Your task to perform on an android device: Search for "macbook" on target, select the first entry, and add it to the cart. Image 0: 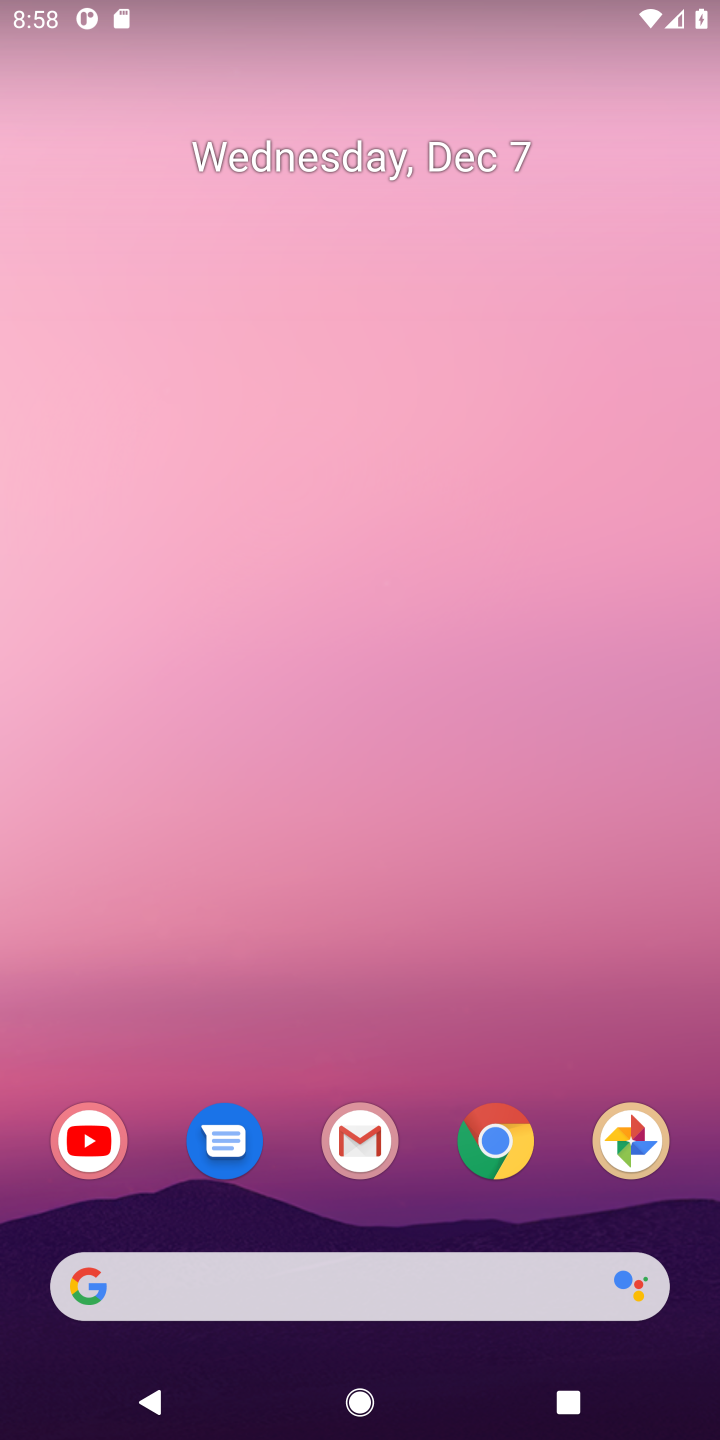
Step 0: press home button
Your task to perform on an android device: Search for "macbook" on target, select the first entry, and add it to the cart. Image 1: 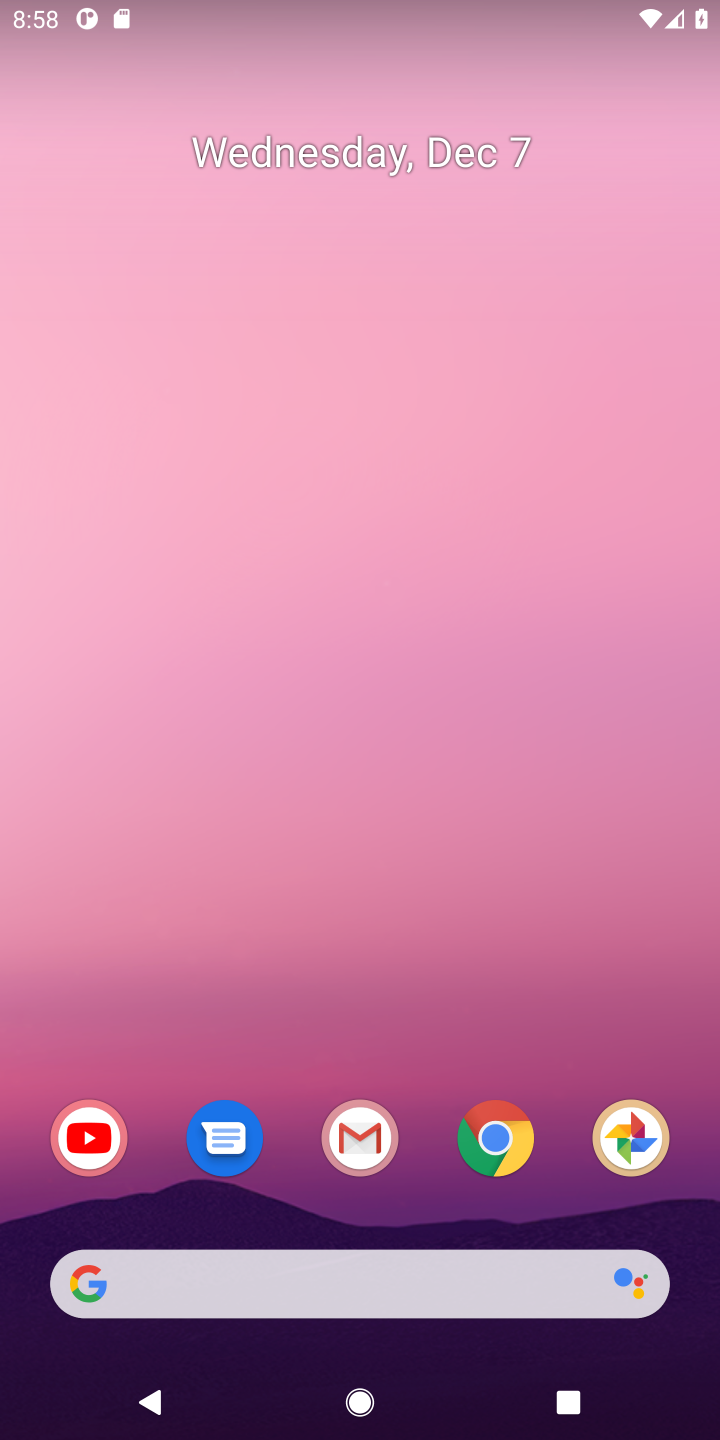
Step 1: click (154, 1288)
Your task to perform on an android device: Search for "macbook" on target, select the first entry, and add it to the cart. Image 2: 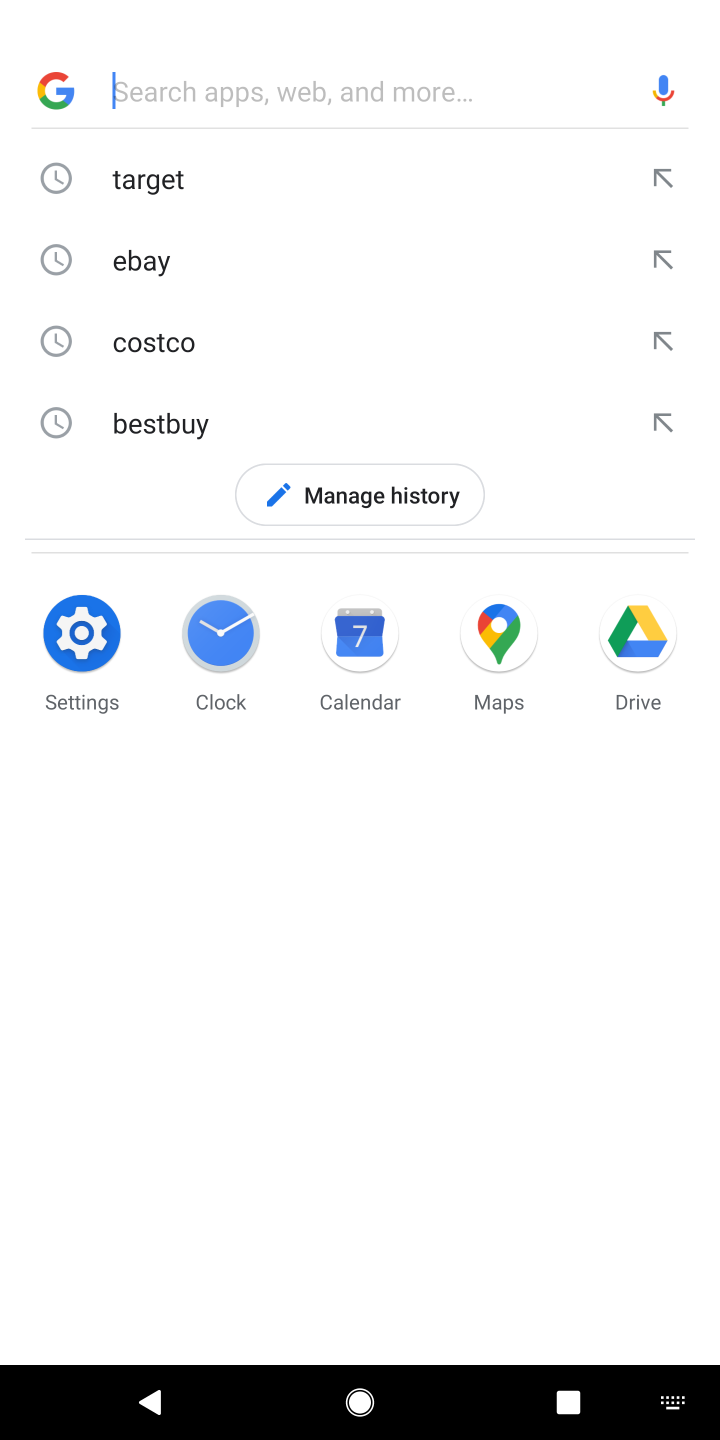
Step 2: type "target"
Your task to perform on an android device: Search for "macbook" on target, select the first entry, and add it to the cart. Image 3: 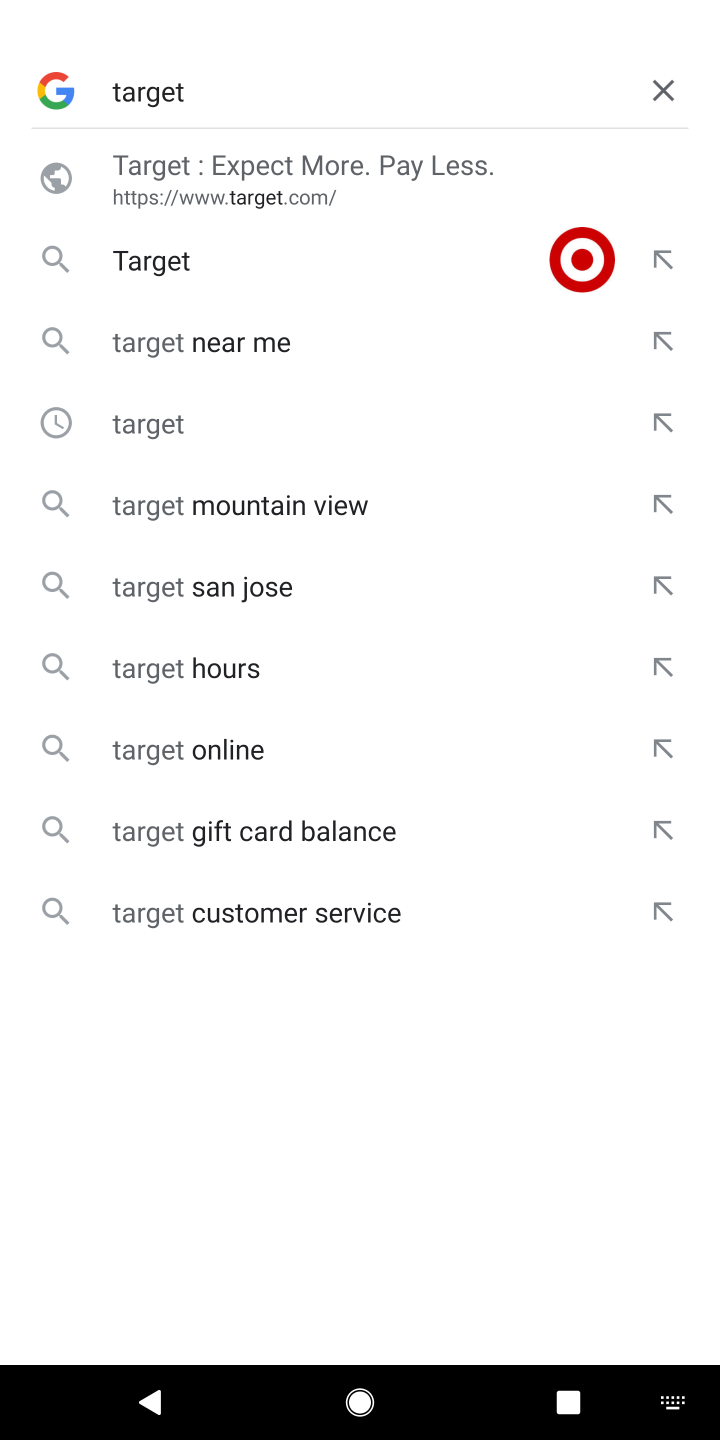
Step 3: press enter
Your task to perform on an android device: Search for "macbook" on target, select the first entry, and add it to the cart. Image 4: 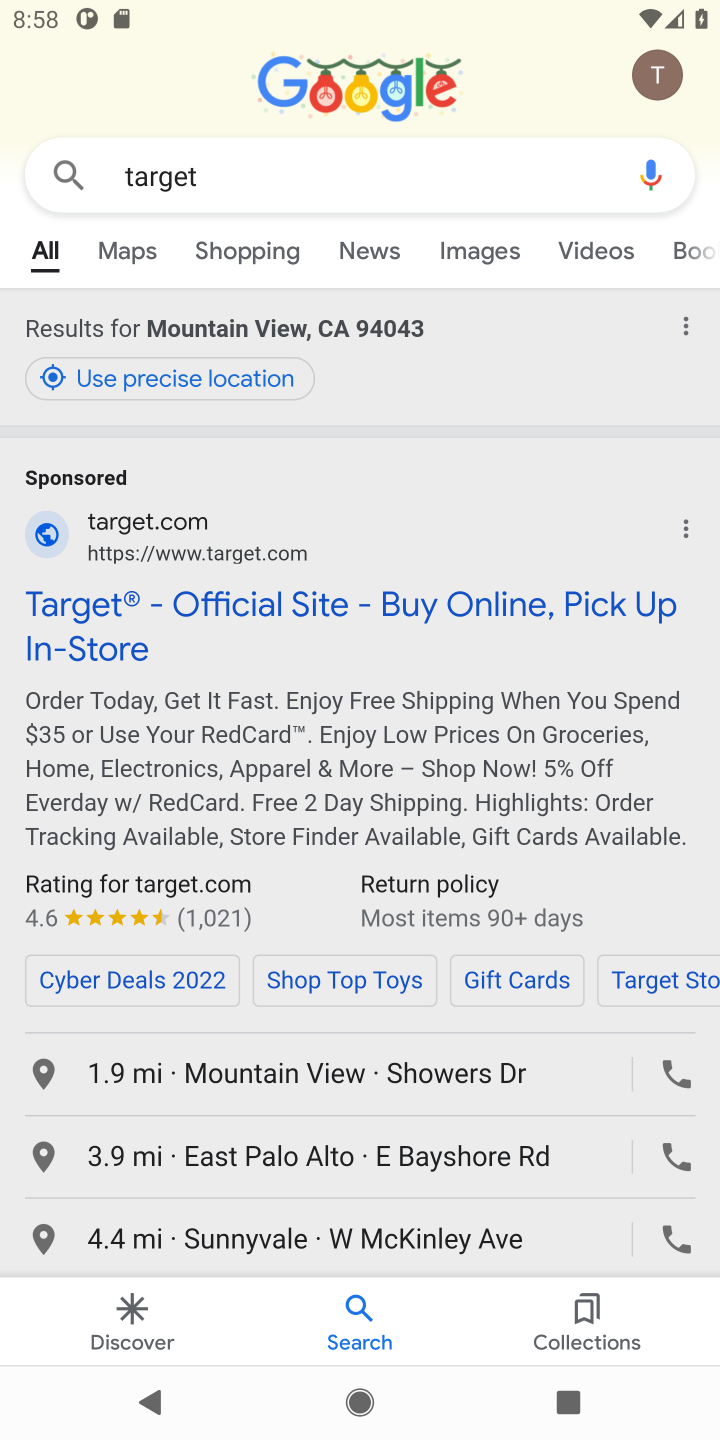
Step 4: click (260, 609)
Your task to perform on an android device: Search for "macbook" on target, select the first entry, and add it to the cart. Image 5: 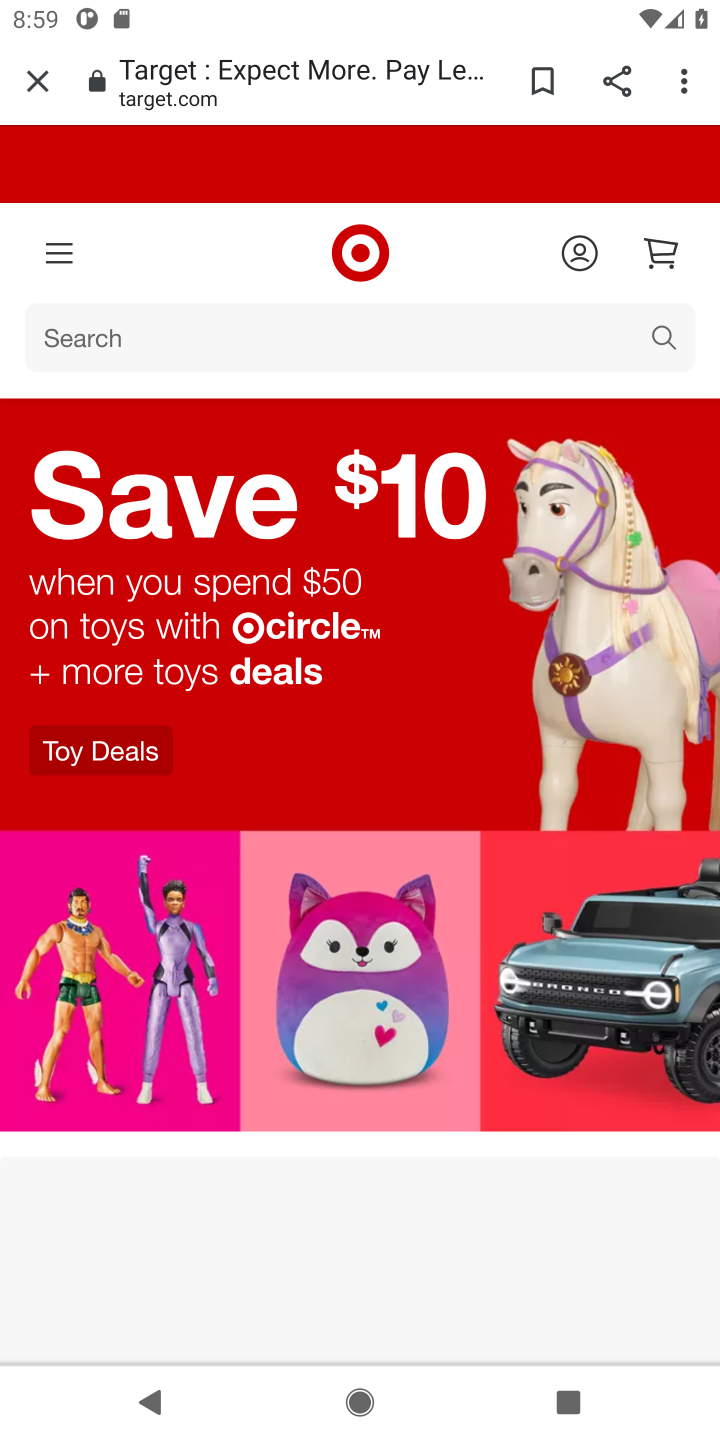
Step 5: click (79, 335)
Your task to perform on an android device: Search for "macbook" on target, select the first entry, and add it to the cart. Image 6: 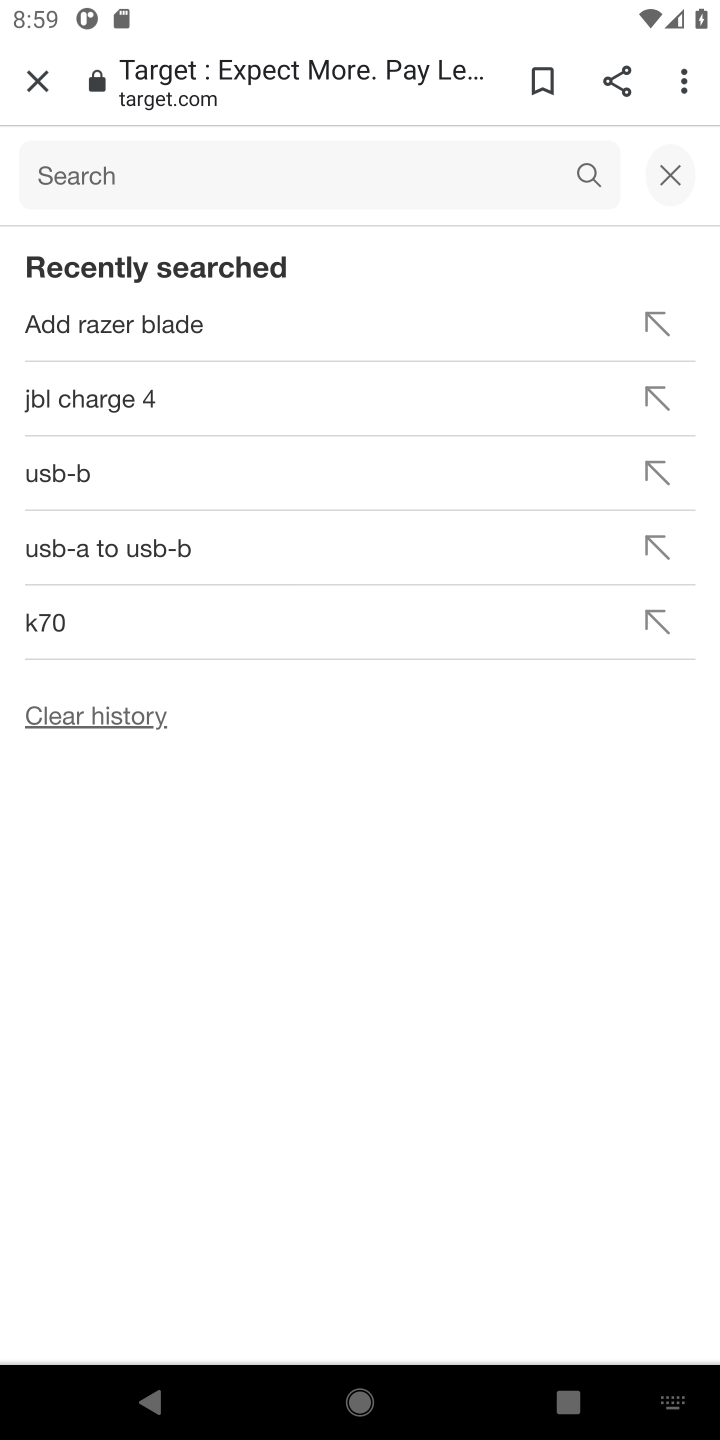
Step 6: press enter
Your task to perform on an android device: Search for "macbook" on target, select the first entry, and add it to the cart. Image 7: 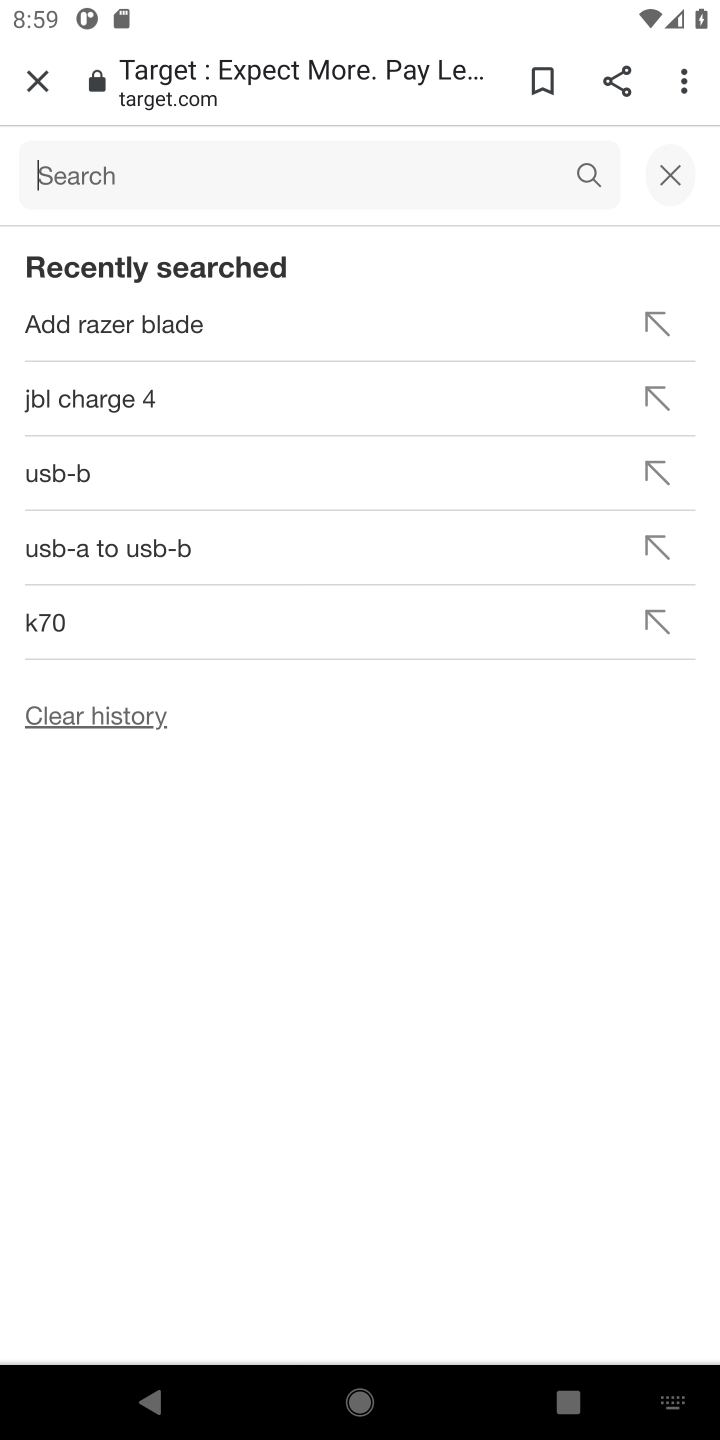
Step 7: type "macbook"
Your task to perform on an android device: Search for "macbook" on target, select the first entry, and add it to the cart. Image 8: 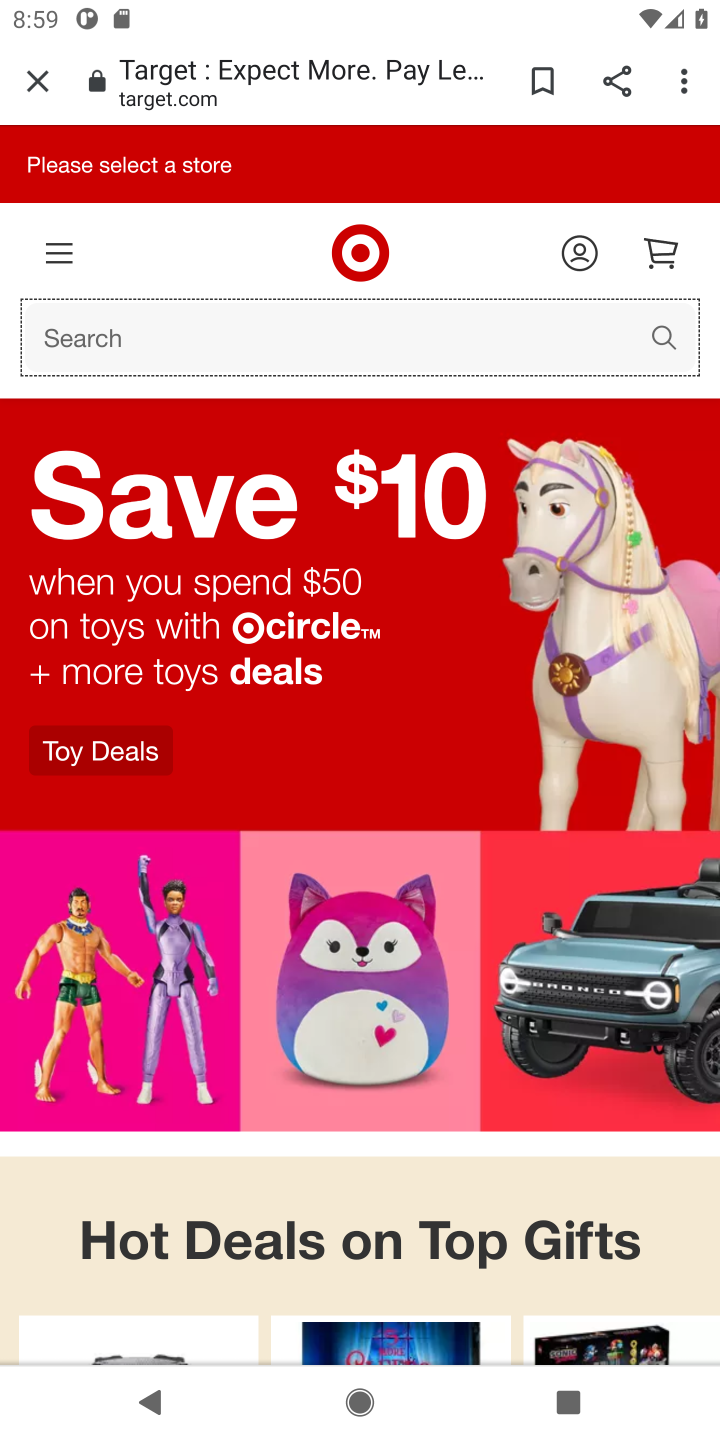
Step 8: click (155, 323)
Your task to perform on an android device: Search for "macbook" on target, select the first entry, and add it to the cart. Image 9: 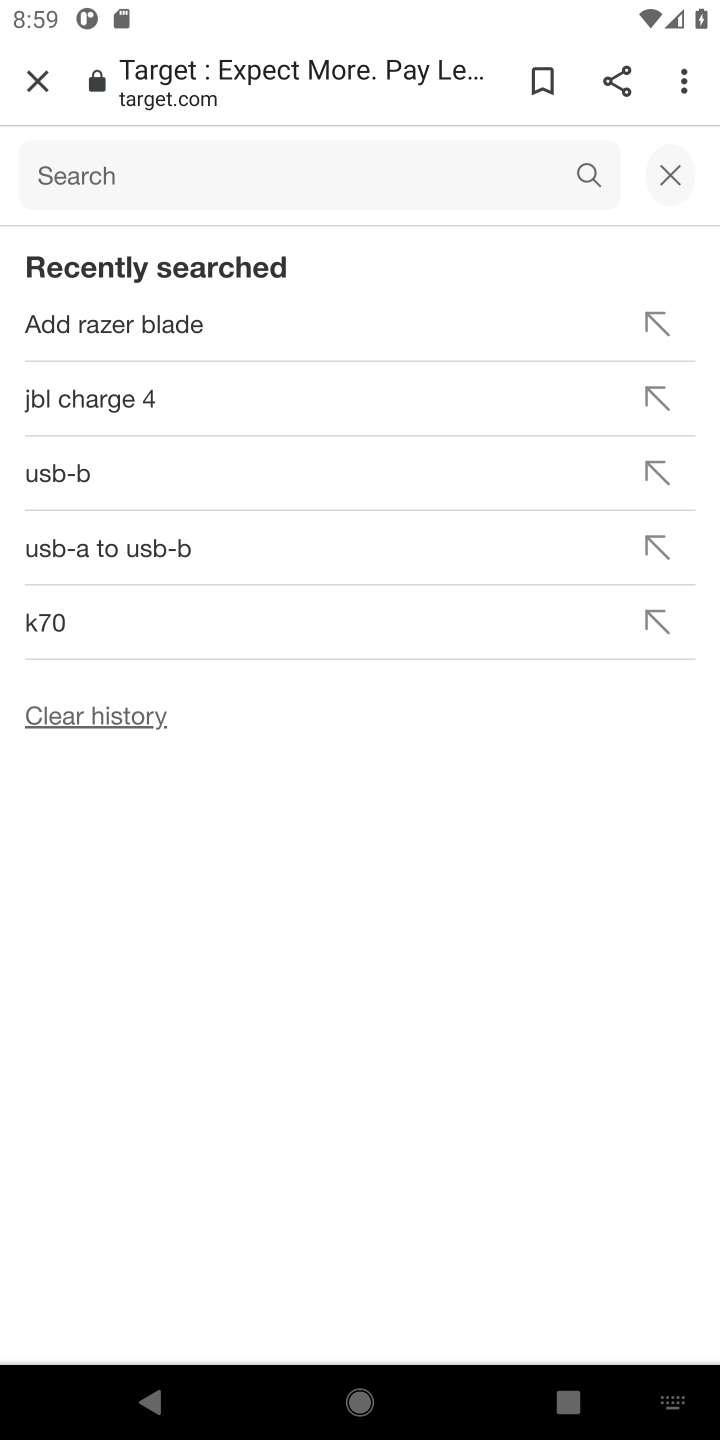
Step 9: type "macbook"
Your task to perform on an android device: Search for "macbook" on target, select the first entry, and add it to the cart. Image 10: 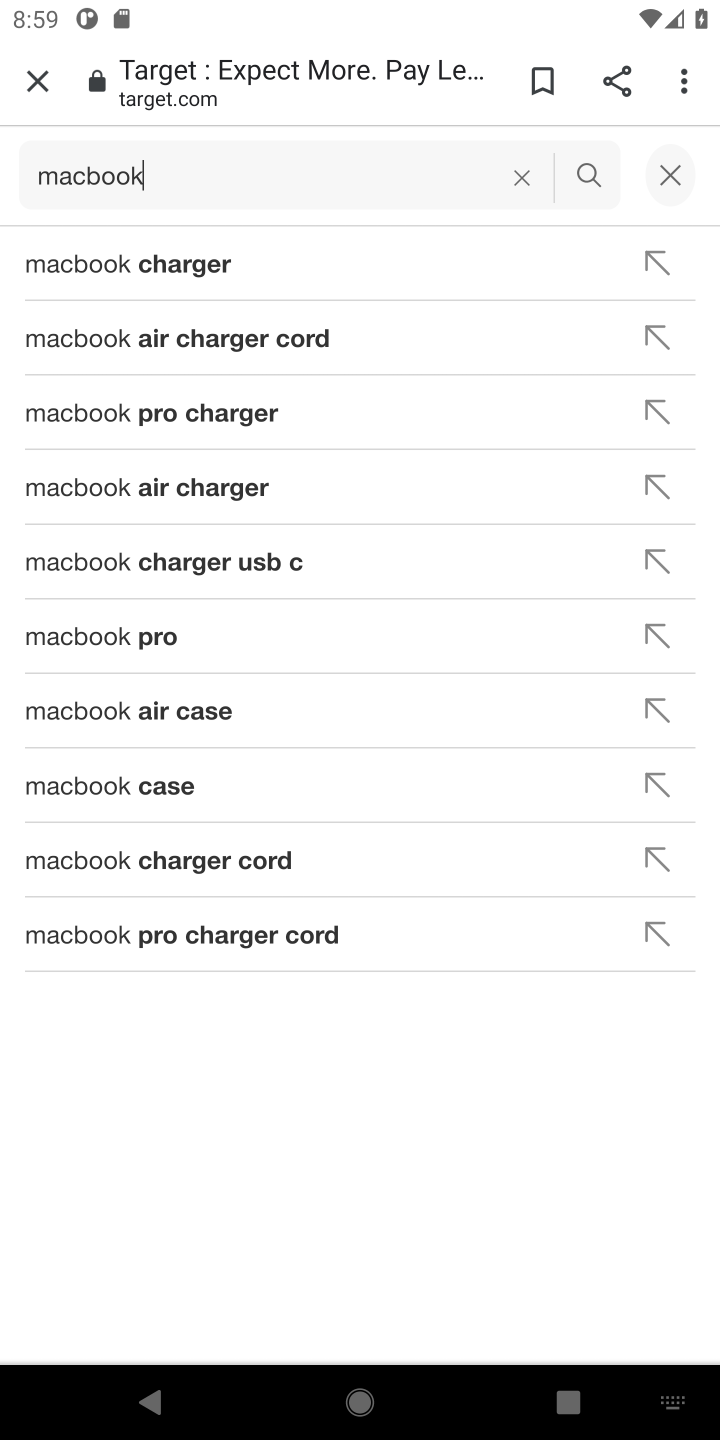
Step 10: click (577, 167)
Your task to perform on an android device: Search for "macbook" on target, select the first entry, and add it to the cart. Image 11: 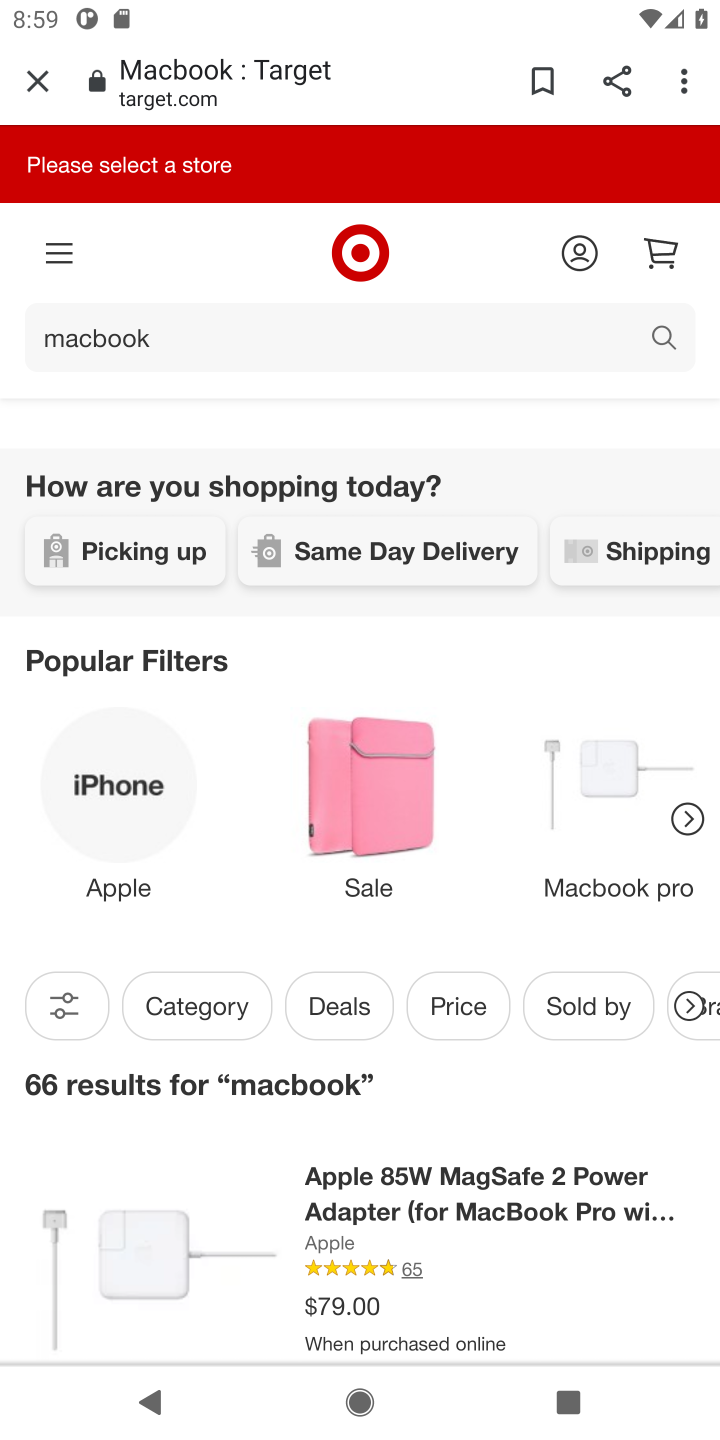
Step 11: drag from (478, 1261) to (491, 458)
Your task to perform on an android device: Search for "macbook" on target, select the first entry, and add it to the cart. Image 12: 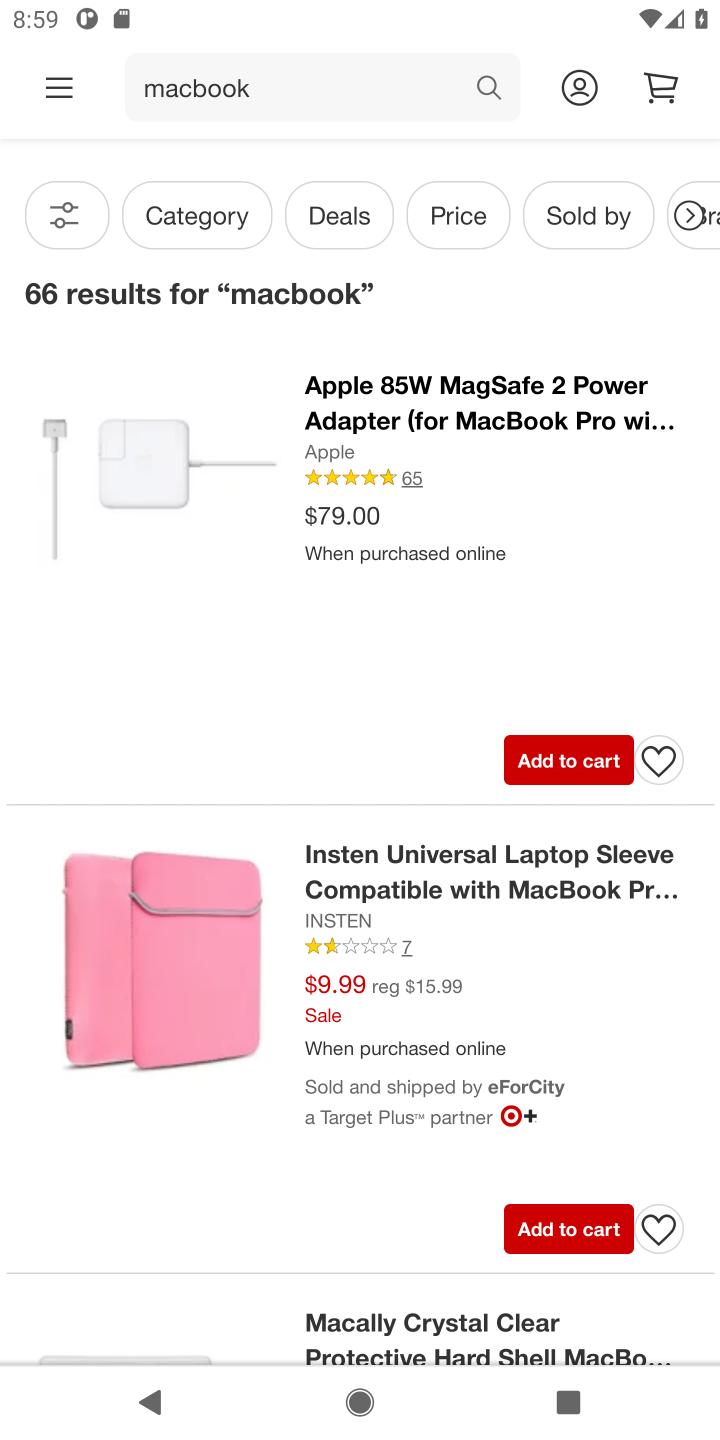
Step 12: click (564, 763)
Your task to perform on an android device: Search for "macbook" on target, select the first entry, and add it to the cart. Image 13: 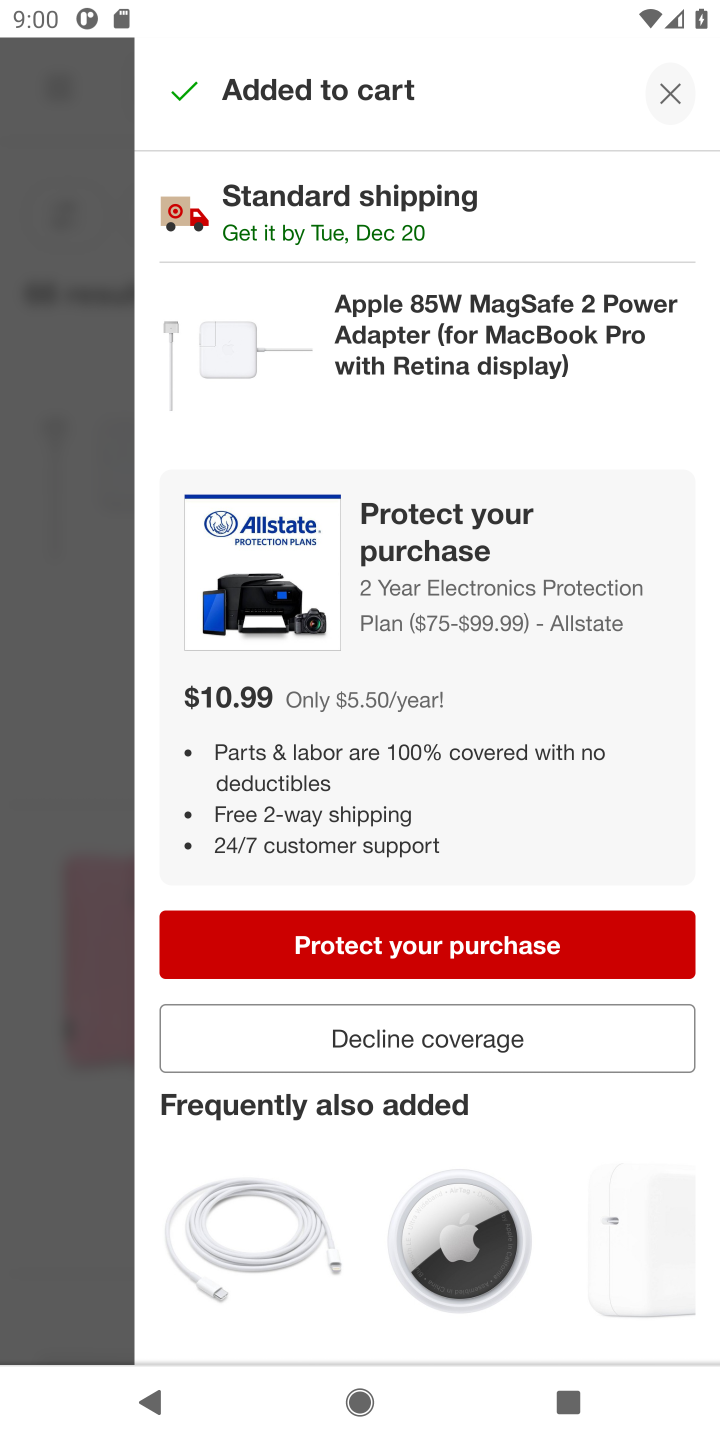
Step 13: task complete